Your task to perform on an android device: Open the phone app and click the voicemail tab. Image 0: 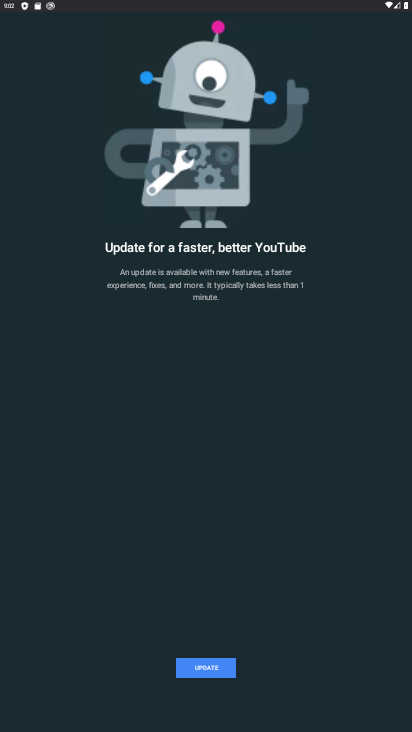
Step 0: press home button
Your task to perform on an android device: Open the phone app and click the voicemail tab. Image 1: 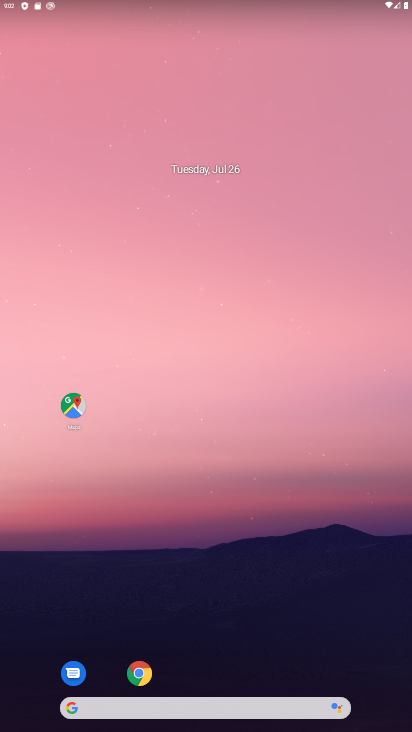
Step 1: drag from (183, 703) to (190, 227)
Your task to perform on an android device: Open the phone app and click the voicemail tab. Image 2: 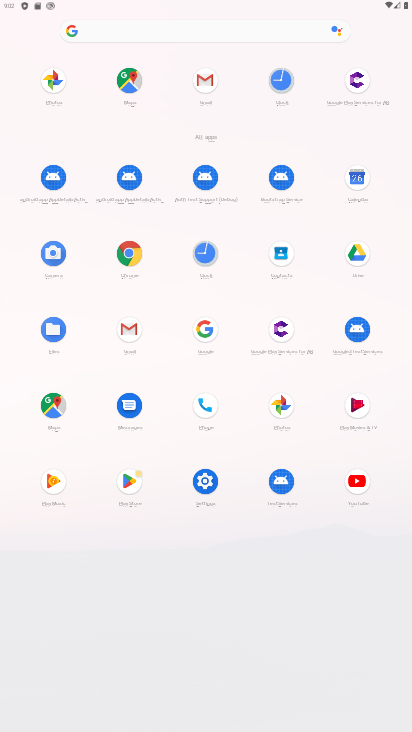
Step 2: click (203, 406)
Your task to perform on an android device: Open the phone app and click the voicemail tab. Image 3: 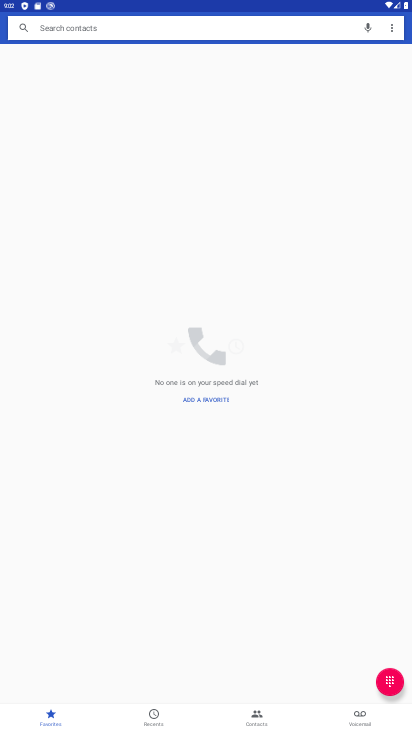
Step 3: click (357, 718)
Your task to perform on an android device: Open the phone app and click the voicemail tab. Image 4: 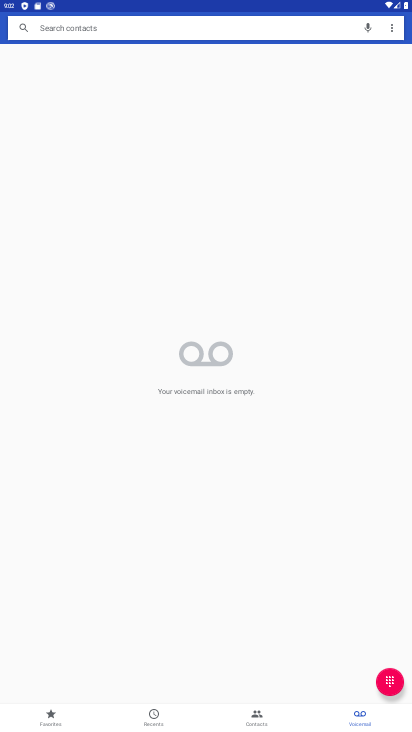
Step 4: task complete